Your task to perform on an android device: create a new album in the google photos Image 0: 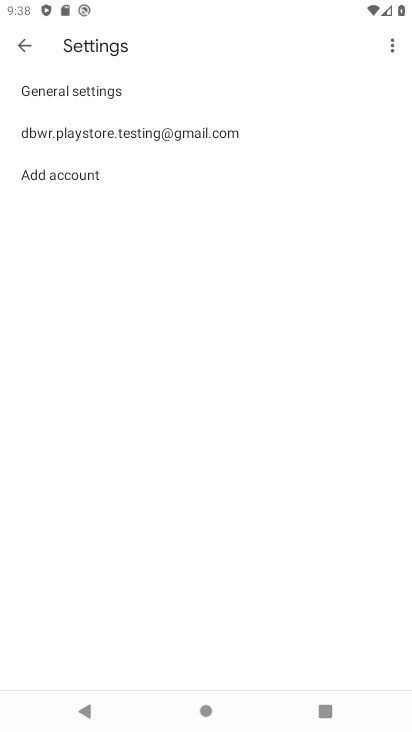
Step 0: press home button
Your task to perform on an android device: create a new album in the google photos Image 1: 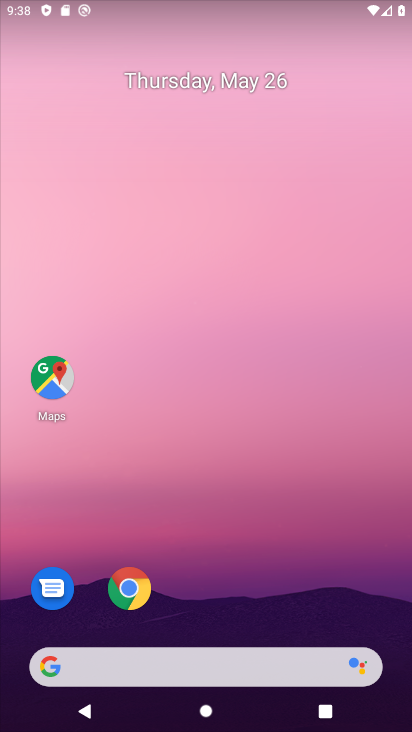
Step 1: drag from (224, 728) to (224, 69)
Your task to perform on an android device: create a new album in the google photos Image 2: 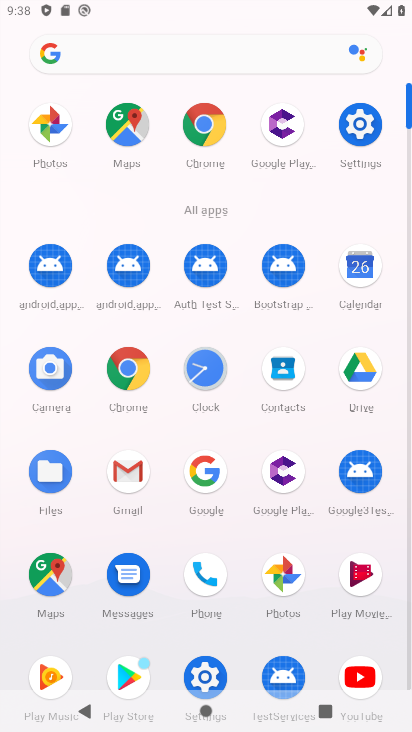
Step 2: click (278, 573)
Your task to perform on an android device: create a new album in the google photos Image 3: 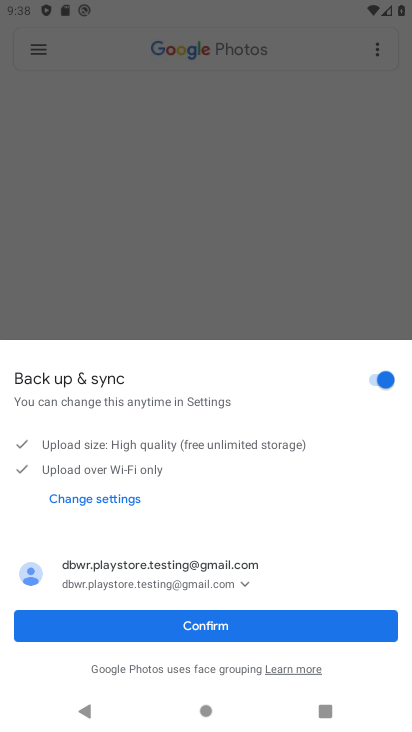
Step 3: click (226, 626)
Your task to perform on an android device: create a new album in the google photos Image 4: 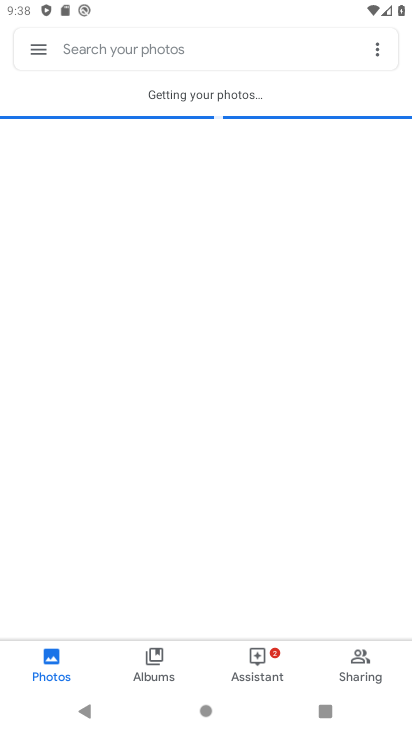
Step 4: click (378, 54)
Your task to perform on an android device: create a new album in the google photos Image 5: 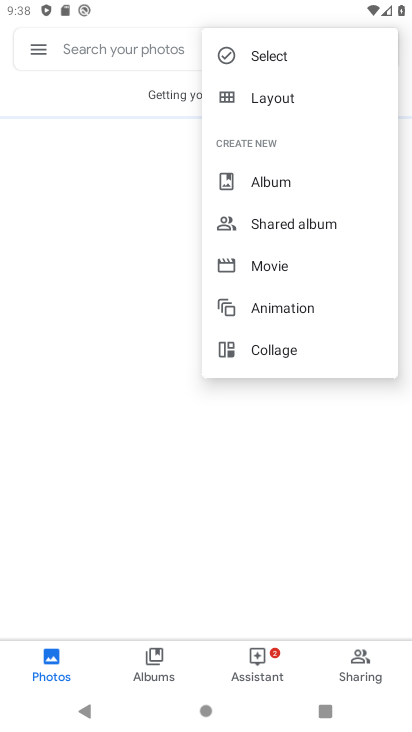
Step 5: click (273, 178)
Your task to perform on an android device: create a new album in the google photos Image 6: 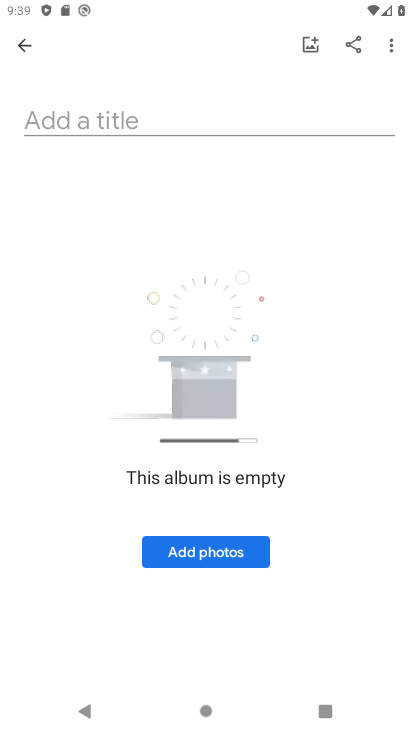
Step 6: click (142, 112)
Your task to perform on an android device: create a new album in the google photos Image 7: 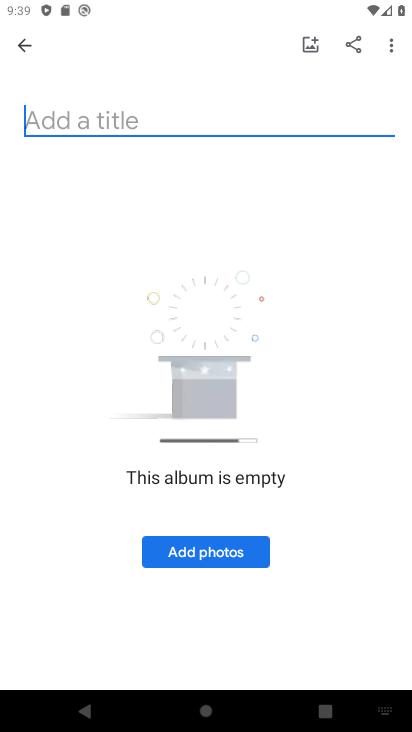
Step 7: type "neel"
Your task to perform on an android device: create a new album in the google photos Image 8: 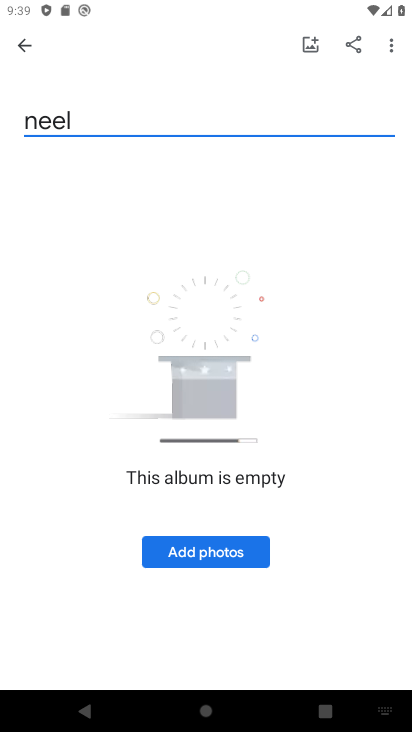
Step 8: click (198, 556)
Your task to perform on an android device: create a new album in the google photos Image 9: 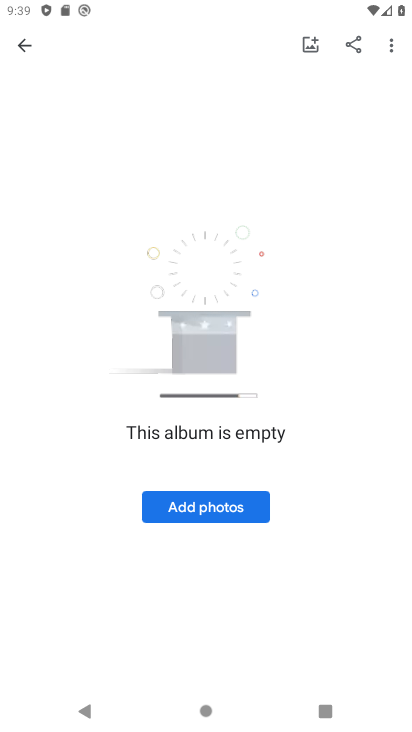
Step 9: click (214, 506)
Your task to perform on an android device: create a new album in the google photos Image 10: 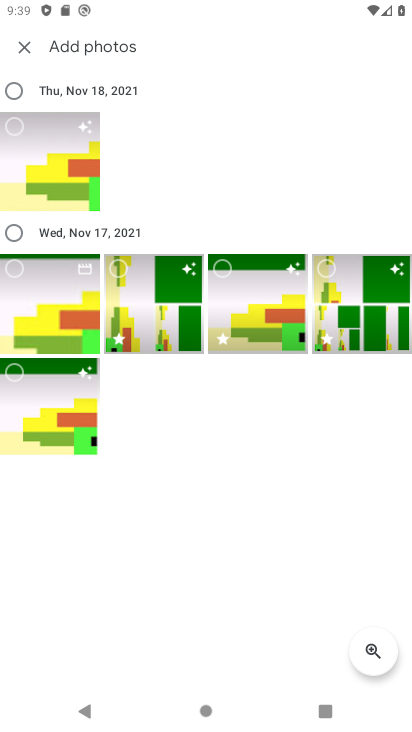
Step 10: click (9, 125)
Your task to perform on an android device: create a new album in the google photos Image 11: 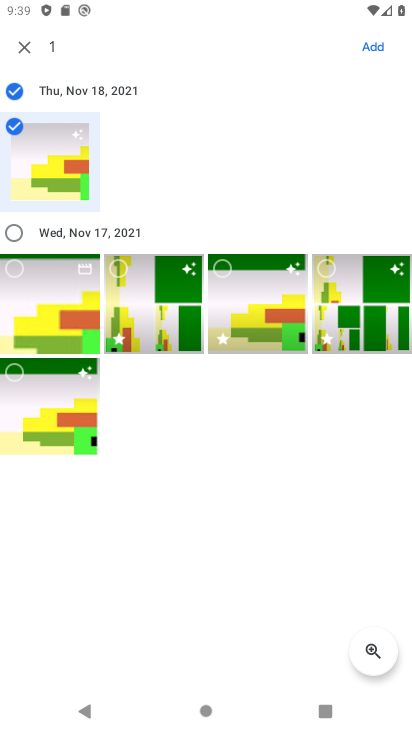
Step 11: click (378, 44)
Your task to perform on an android device: create a new album in the google photos Image 12: 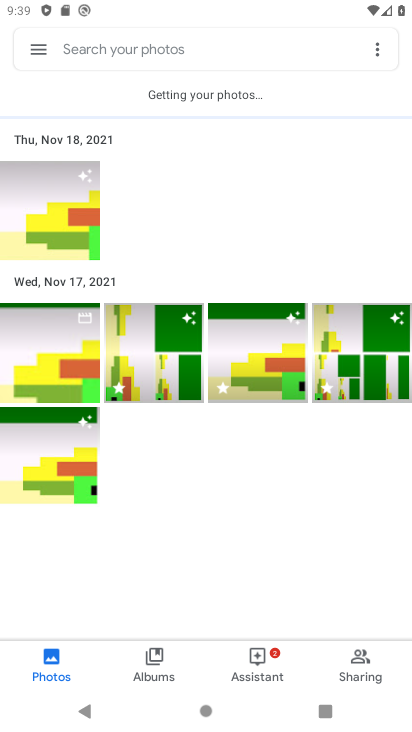
Step 12: task complete